Your task to perform on an android device: Go to eBay Image 0: 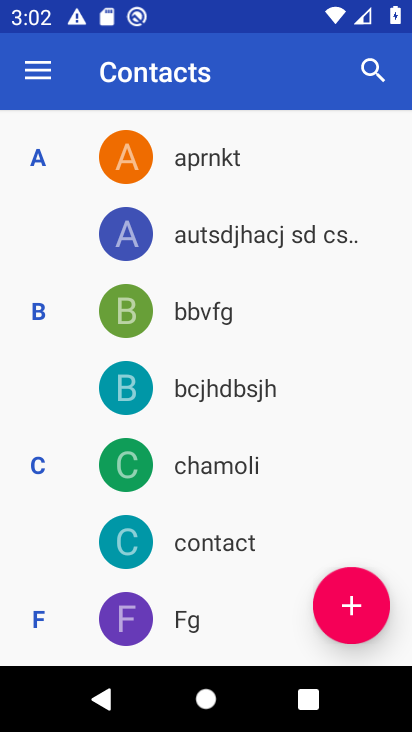
Step 0: press home button
Your task to perform on an android device: Go to eBay Image 1: 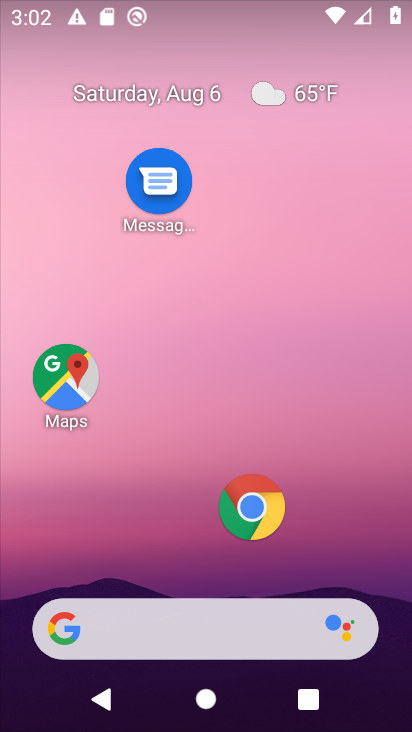
Step 1: drag from (176, 553) to (204, 15)
Your task to perform on an android device: Go to eBay Image 2: 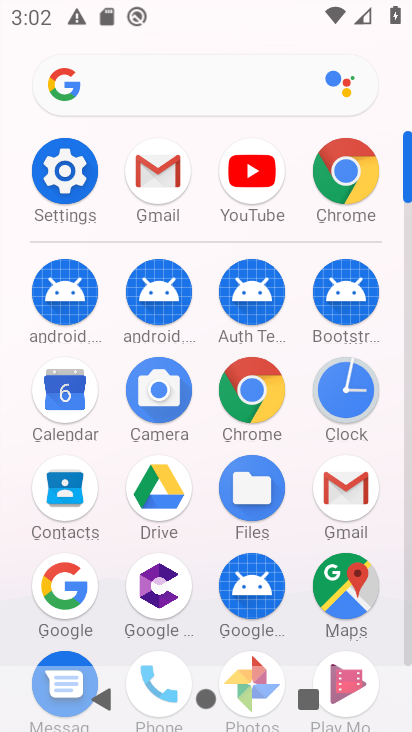
Step 2: click (352, 210)
Your task to perform on an android device: Go to eBay Image 3: 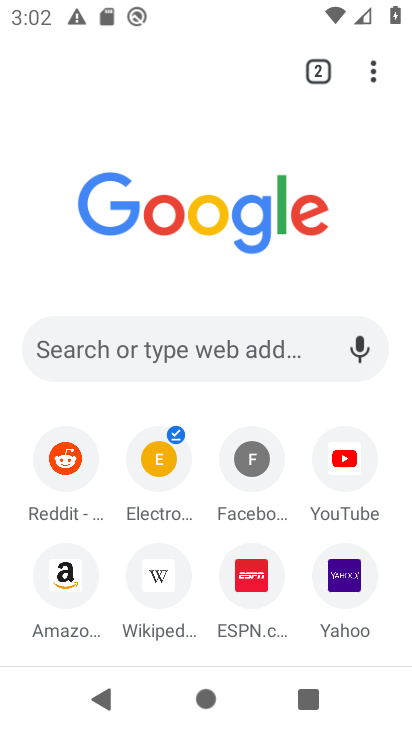
Step 3: click (206, 356)
Your task to perform on an android device: Go to eBay Image 4: 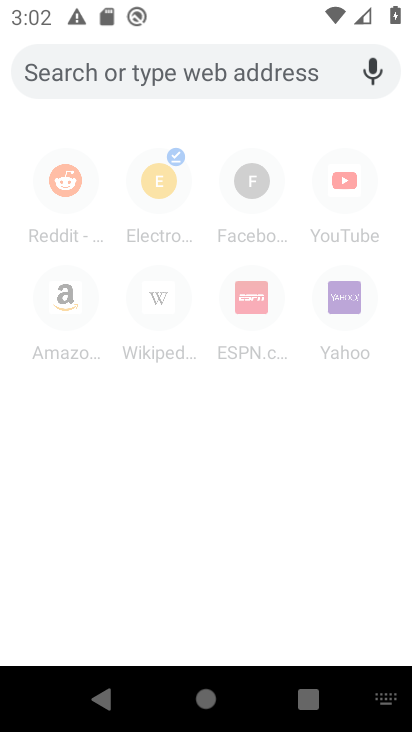
Step 4: type "Ebay"
Your task to perform on an android device: Go to eBay Image 5: 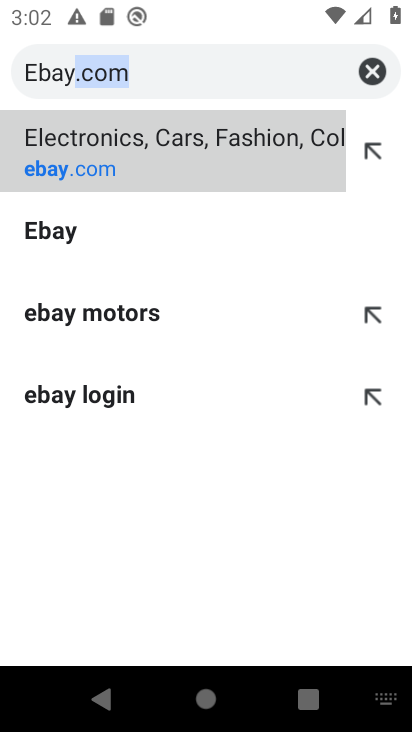
Step 5: click (167, 173)
Your task to perform on an android device: Go to eBay Image 6: 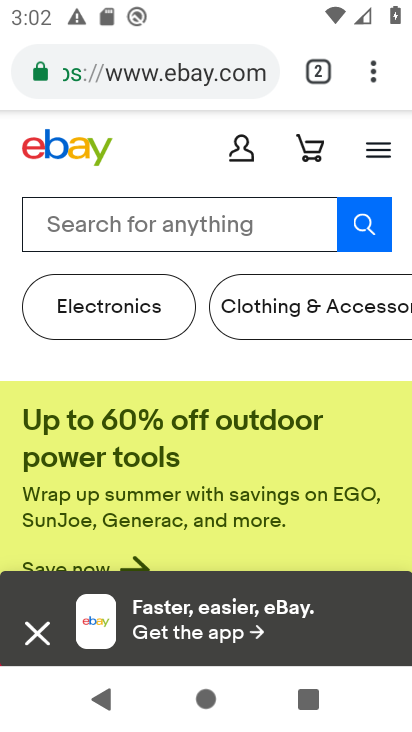
Step 6: task complete